Your task to perform on an android device: change notification settings in the gmail app Image 0: 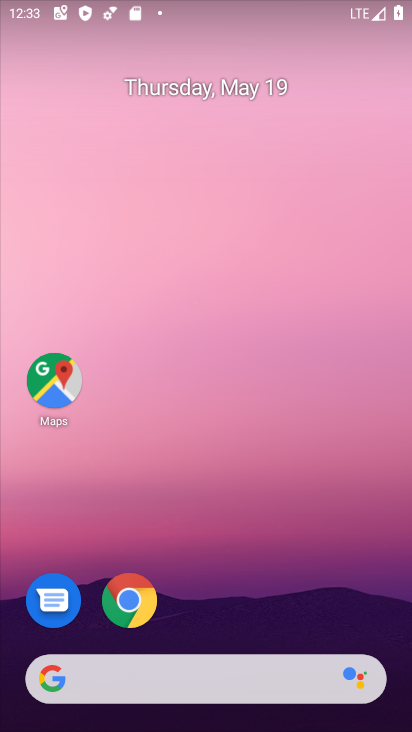
Step 0: drag from (253, 558) to (145, 6)
Your task to perform on an android device: change notification settings in the gmail app Image 1: 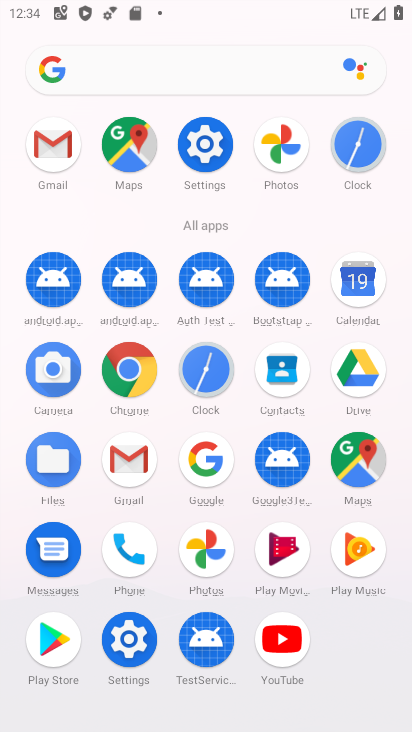
Step 1: click (124, 455)
Your task to perform on an android device: change notification settings in the gmail app Image 2: 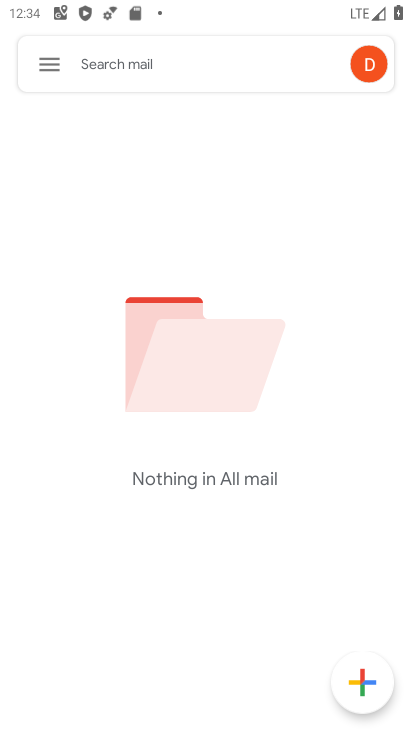
Step 2: click (45, 62)
Your task to perform on an android device: change notification settings in the gmail app Image 3: 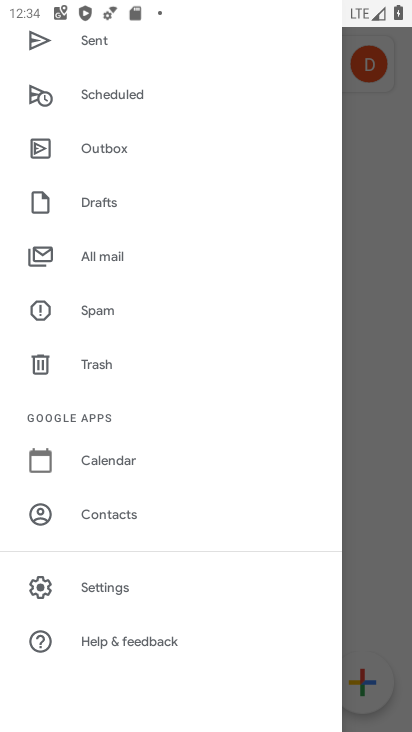
Step 3: click (107, 582)
Your task to perform on an android device: change notification settings in the gmail app Image 4: 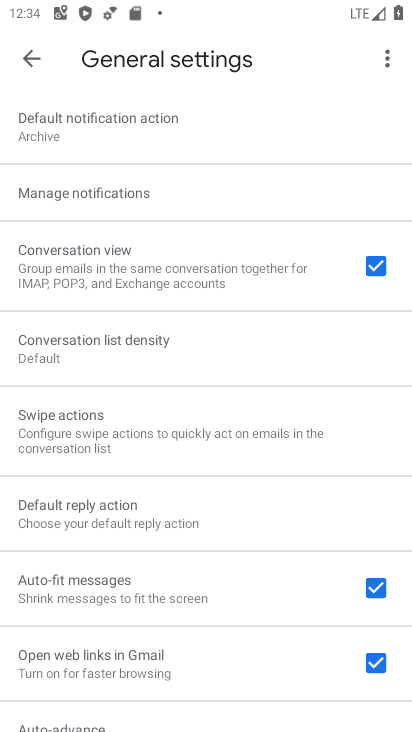
Step 4: click (69, 186)
Your task to perform on an android device: change notification settings in the gmail app Image 5: 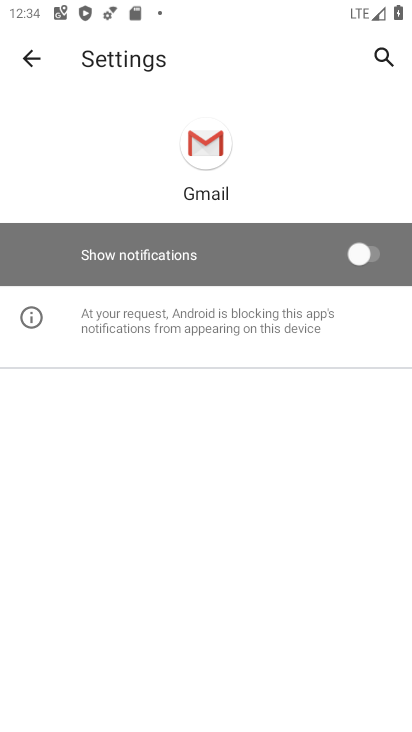
Step 5: click (371, 248)
Your task to perform on an android device: change notification settings in the gmail app Image 6: 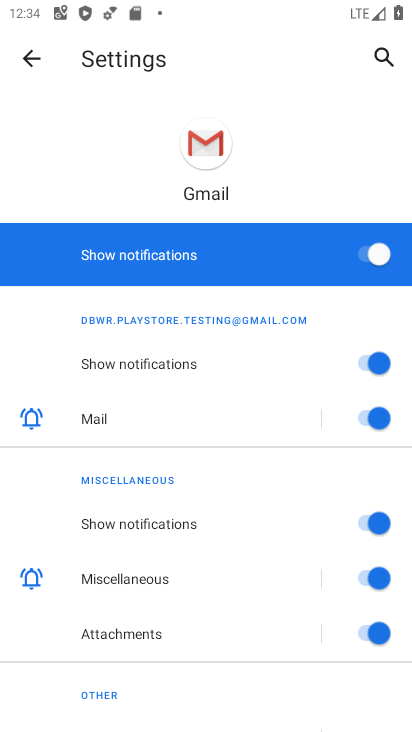
Step 6: task complete